Your task to perform on an android device: Open calendar and show me the second week of next month Image 0: 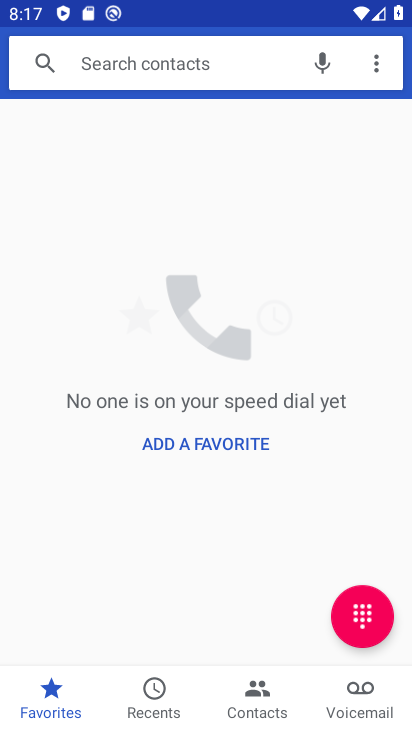
Step 0: press home button
Your task to perform on an android device: Open calendar and show me the second week of next month Image 1: 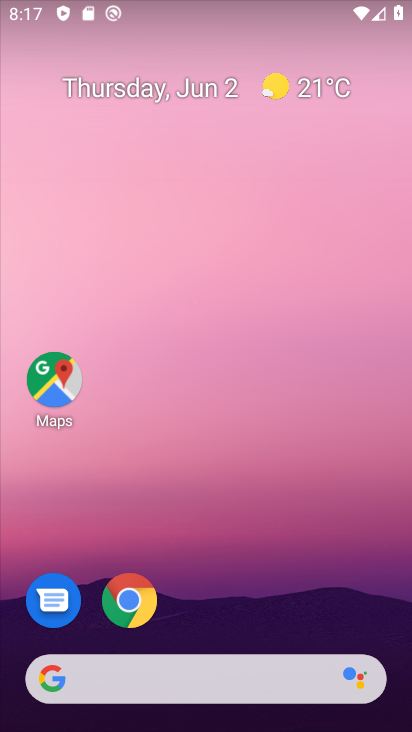
Step 1: drag from (194, 612) to (196, 122)
Your task to perform on an android device: Open calendar and show me the second week of next month Image 2: 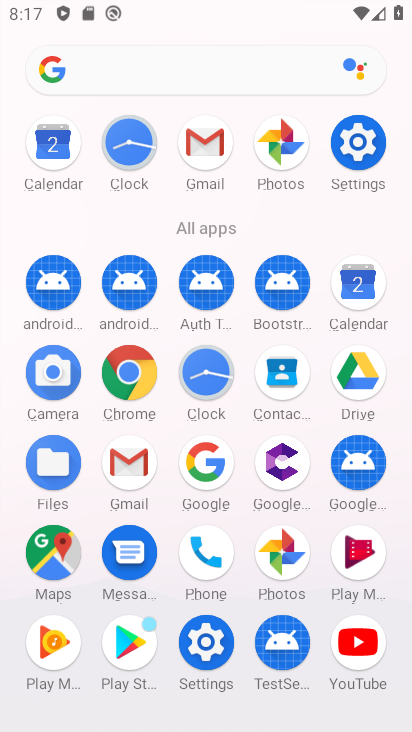
Step 2: click (337, 294)
Your task to perform on an android device: Open calendar and show me the second week of next month Image 3: 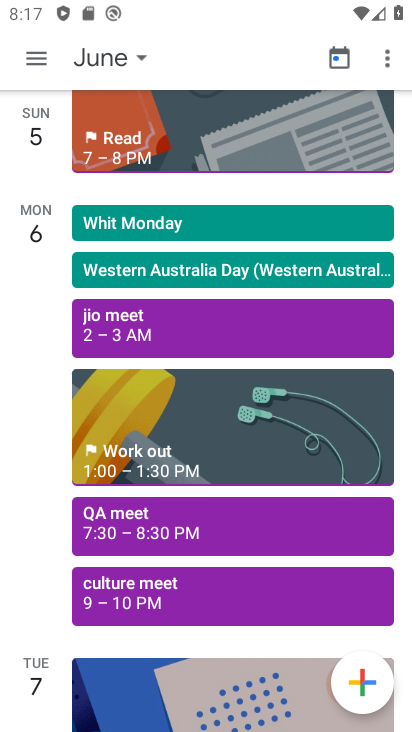
Step 3: click (124, 61)
Your task to perform on an android device: Open calendar and show me the second week of next month Image 4: 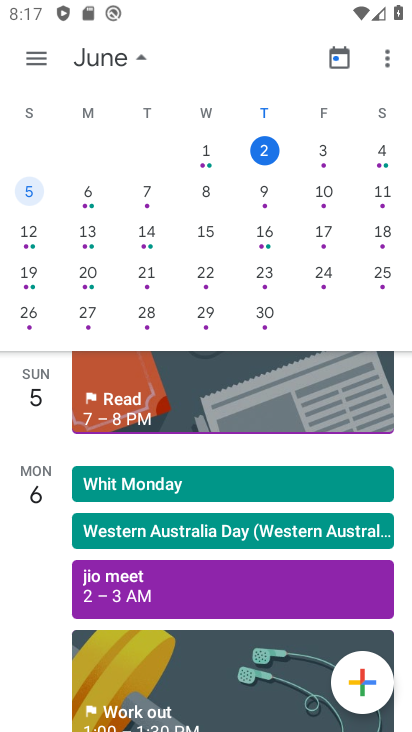
Step 4: drag from (344, 212) to (75, 207)
Your task to perform on an android device: Open calendar and show me the second week of next month Image 5: 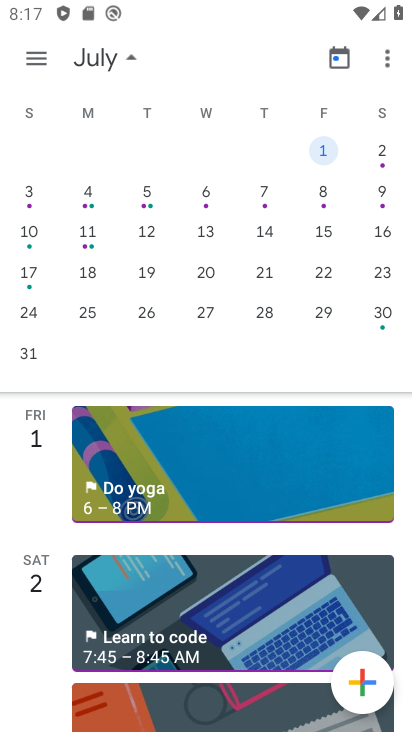
Step 5: click (31, 189)
Your task to perform on an android device: Open calendar and show me the second week of next month Image 6: 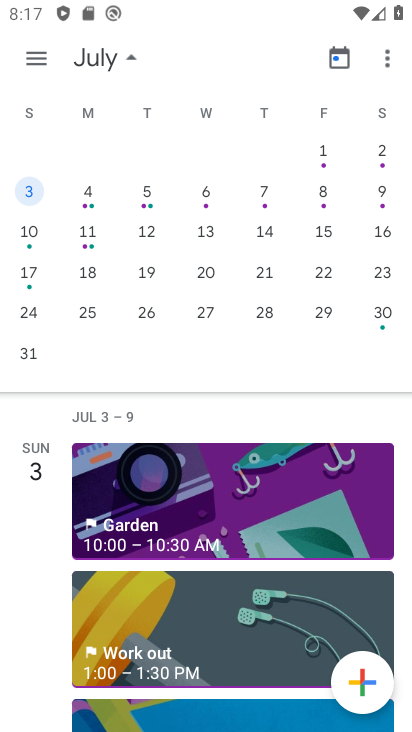
Step 6: task complete